Your task to perform on an android device: turn pop-ups off in chrome Image 0: 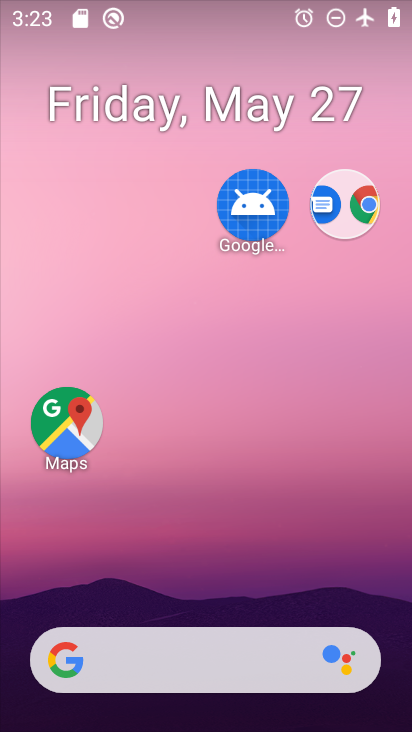
Step 0: drag from (271, 632) to (308, 7)
Your task to perform on an android device: turn pop-ups off in chrome Image 1: 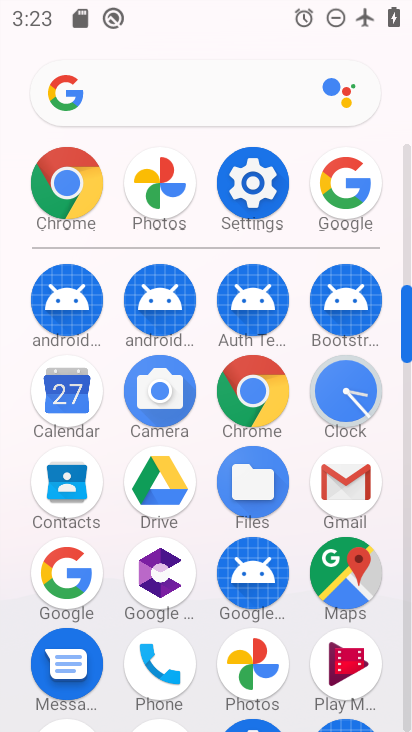
Step 1: click (70, 190)
Your task to perform on an android device: turn pop-ups off in chrome Image 2: 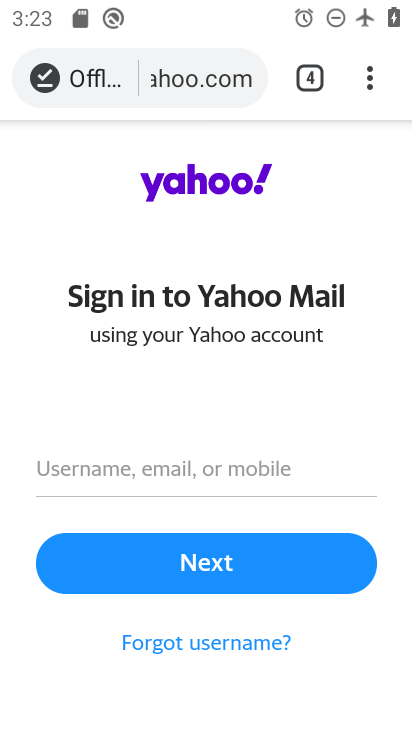
Step 2: click (370, 88)
Your task to perform on an android device: turn pop-ups off in chrome Image 3: 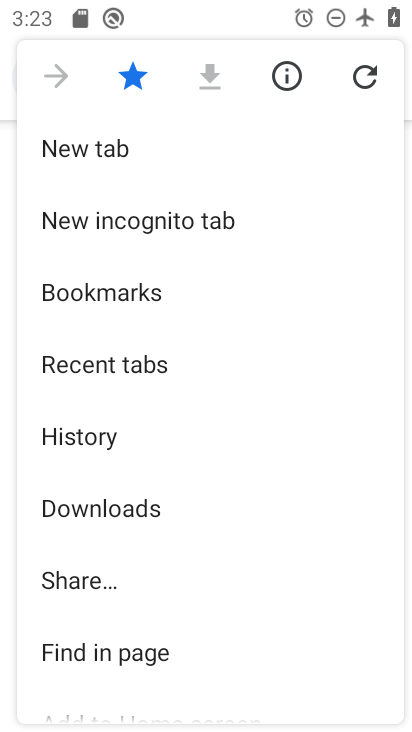
Step 3: drag from (230, 626) to (296, 123)
Your task to perform on an android device: turn pop-ups off in chrome Image 4: 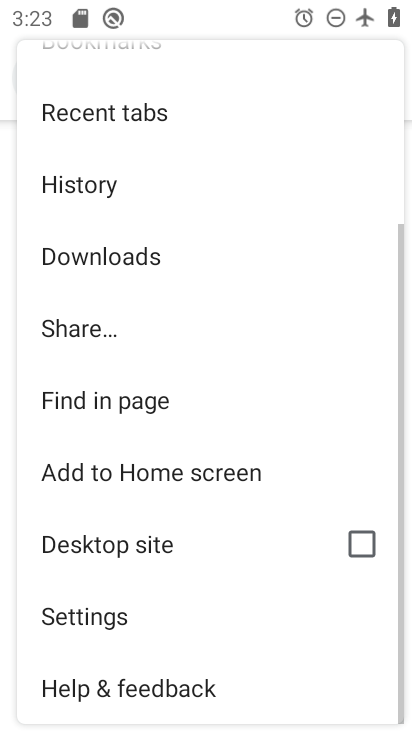
Step 4: click (142, 618)
Your task to perform on an android device: turn pop-ups off in chrome Image 5: 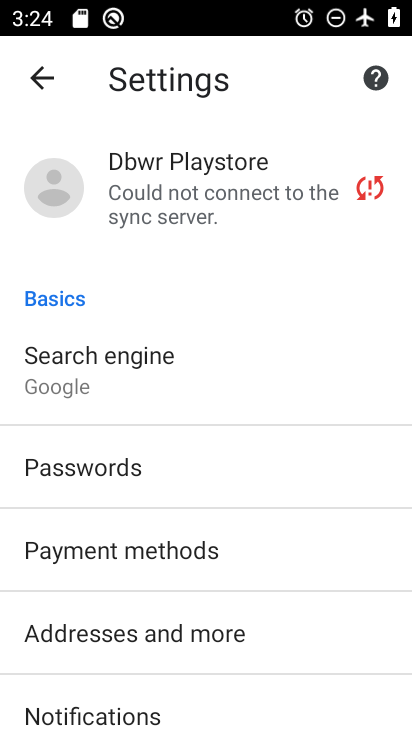
Step 5: drag from (142, 618) to (253, 6)
Your task to perform on an android device: turn pop-ups off in chrome Image 6: 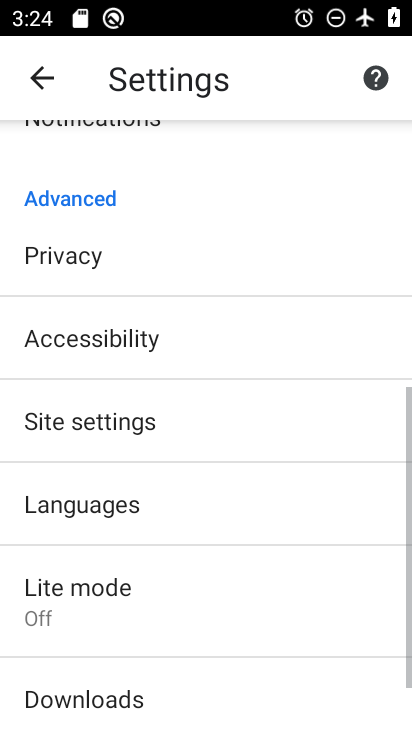
Step 6: drag from (173, 591) to (245, 247)
Your task to perform on an android device: turn pop-ups off in chrome Image 7: 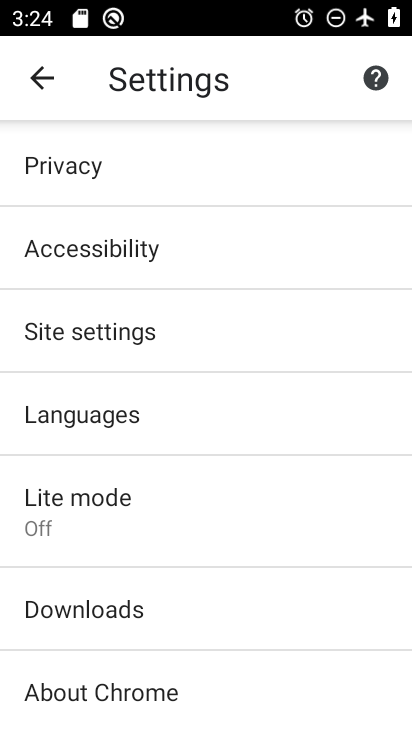
Step 7: click (120, 330)
Your task to perform on an android device: turn pop-ups off in chrome Image 8: 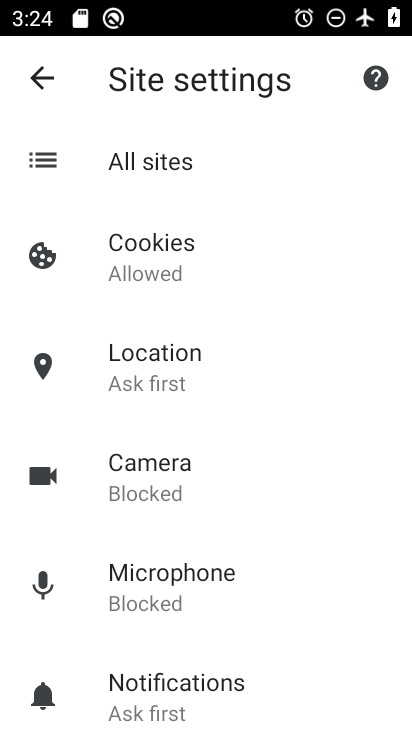
Step 8: drag from (115, 629) to (153, 459)
Your task to perform on an android device: turn pop-ups off in chrome Image 9: 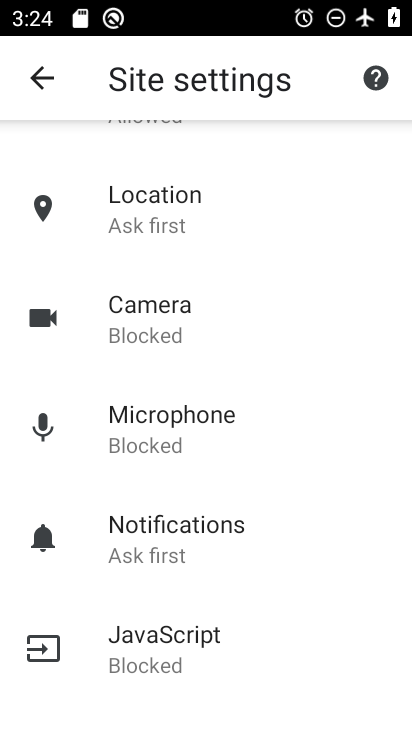
Step 9: drag from (144, 653) to (265, 176)
Your task to perform on an android device: turn pop-ups off in chrome Image 10: 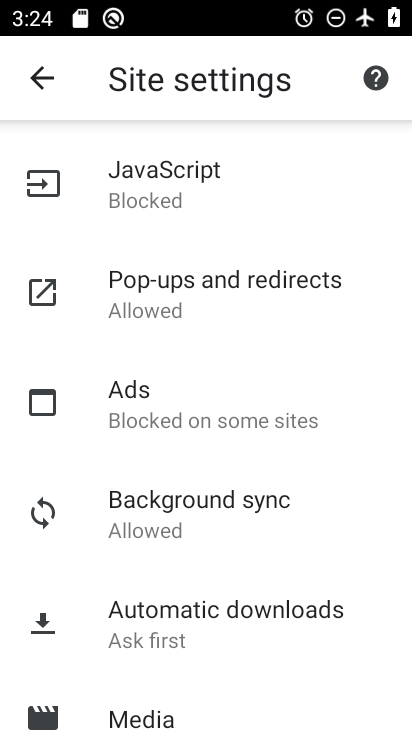
Step 10: click (212, 276)
Your task to perform on an android device: turn pop-ups off in chrome Image 11: 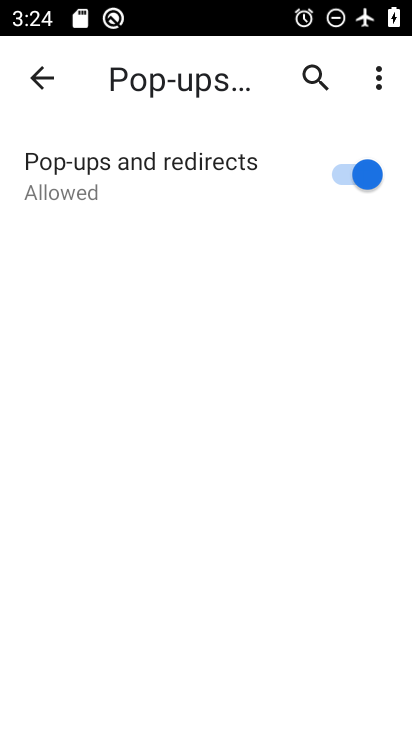
Step 11: click (332, 182)
Your task to perform on an android device: turn pop-ups off in chrome Image 12: 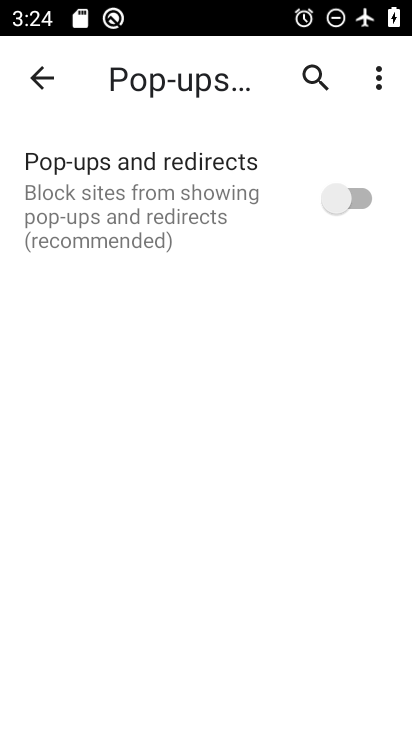
Step 12: task complete